Your task to perform on an android device: add a label to a message in the gmail app Image 0: 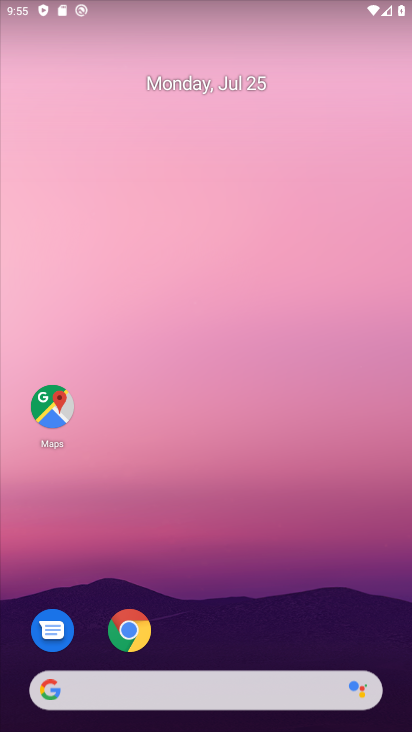
Step 0: drag from (340, 602) to (356, 44)
Your task to perform on an android device: add a label to a message in the gmail app Image 1: 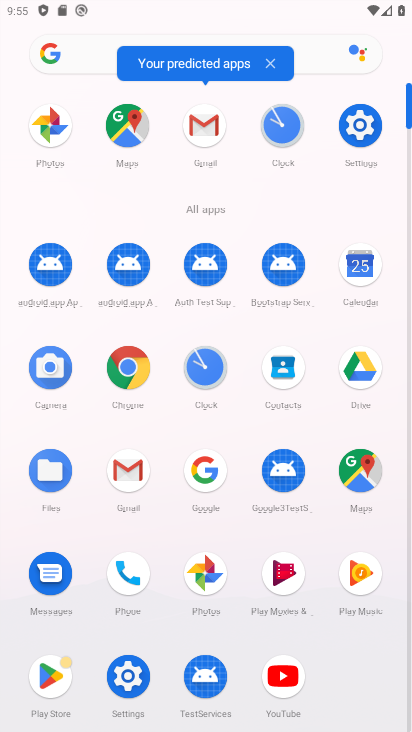
Step 1: click (129, 469)
Your task to perform on an android device: add a label to a message in the gmail app Image 2: 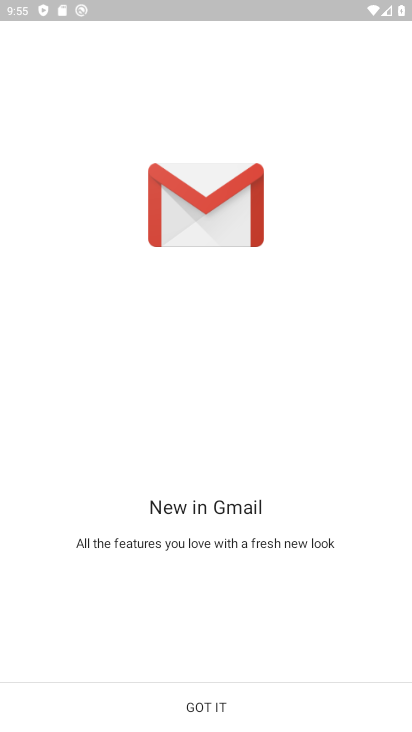
Step 2: click (204, 709)
Your task to perform on an android device: add a label to a message in the gmail app Image 3: 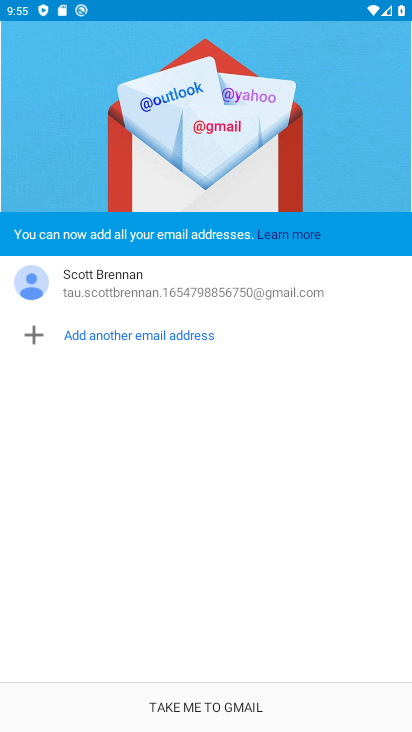
Step 3: click (204, 709)
Your task to perform on an android device: add a label to a message in the gmail app Image 4: 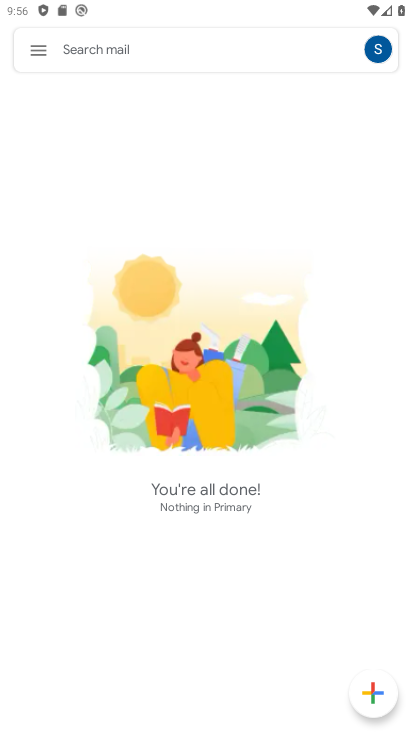
Step 4: task complete